Your task to perform on an android device: Open calendar and show me the first week of next month Image 0: 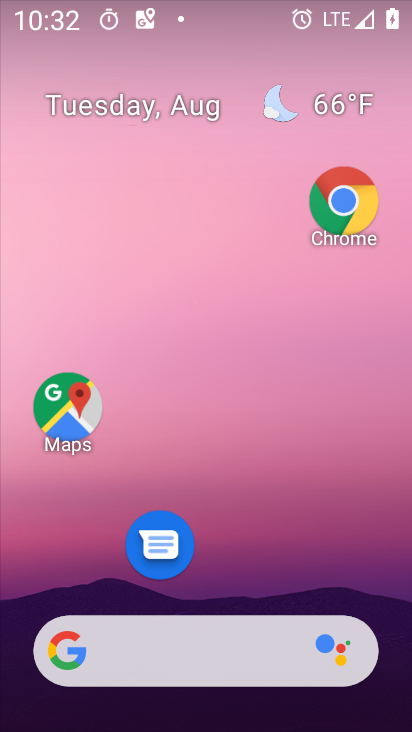
Step 0: drag from (206, 697) to (201, 110)
Your task to perform on an android device: Open calendar and show me the first week of next month Image 1: 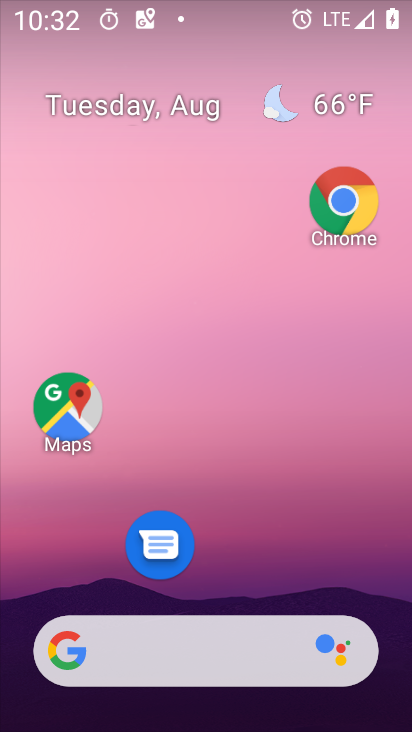
Step 1: drag from (120, 621) to (142, 58)
Your task to perform on an android device: Open calendar and show me the first week of next month Image 2: 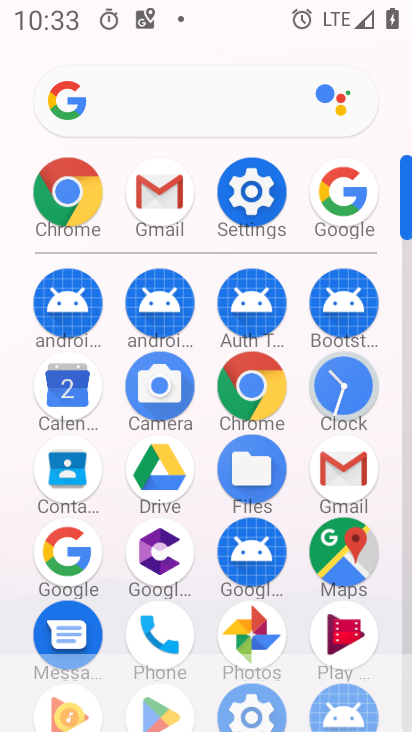
Step 2: click (66, 404)
Your task to perform on an android device: Open calendar and show me the first week of next month Image 3: 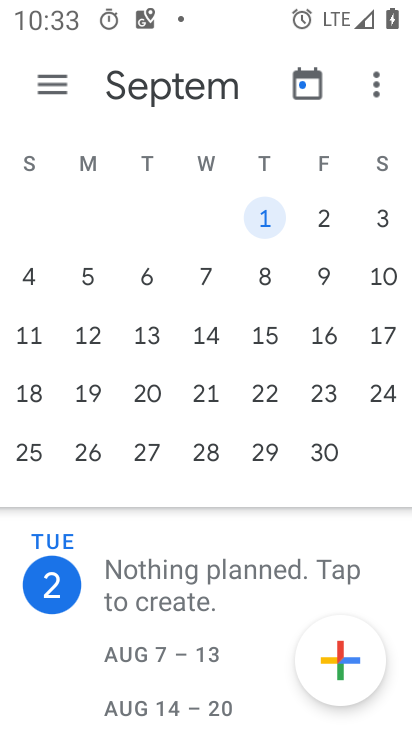
Step 3: click (264, 225)
Your task to perform on an android device: Open calendar and show me the first week of next month Image 4: 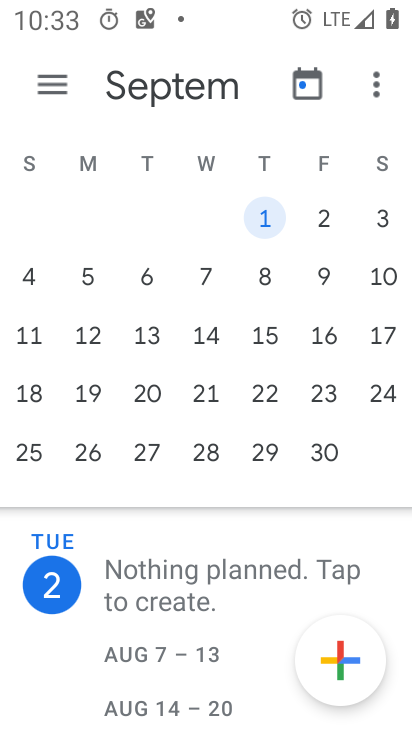
Step 4: task complete